Your task to perform on an android device: Set the phone to "Do not disturb". Image 0: 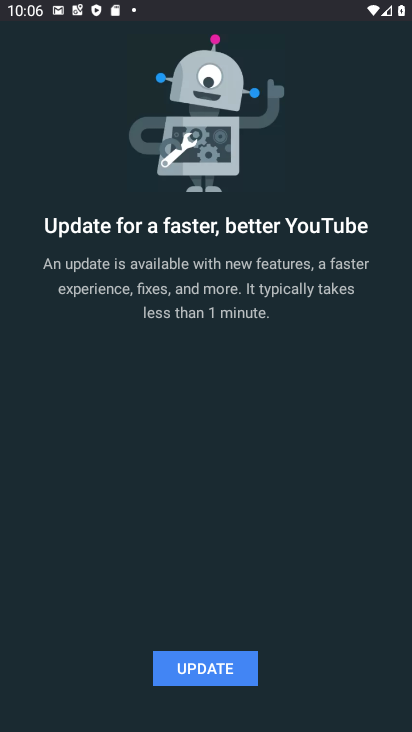
Step 0: press home button
Your task to perform on an android device: Set the phone to "Do not disturb". Image 1: 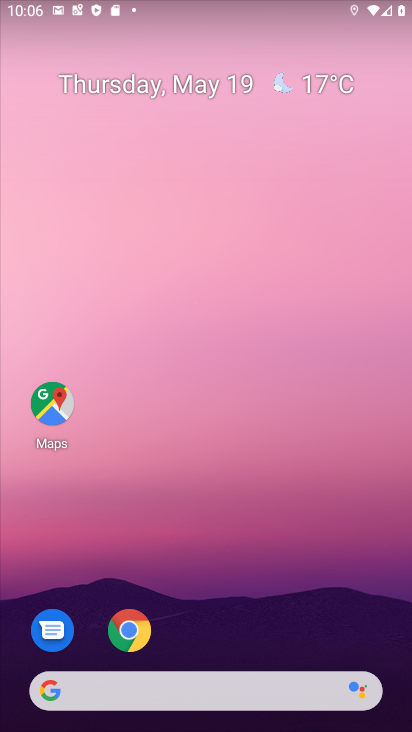
Step 1: drag from (257, 570) to (222, 63)
Your task to perform on an android device: Set the phone to "Do not disturb". Image 2: 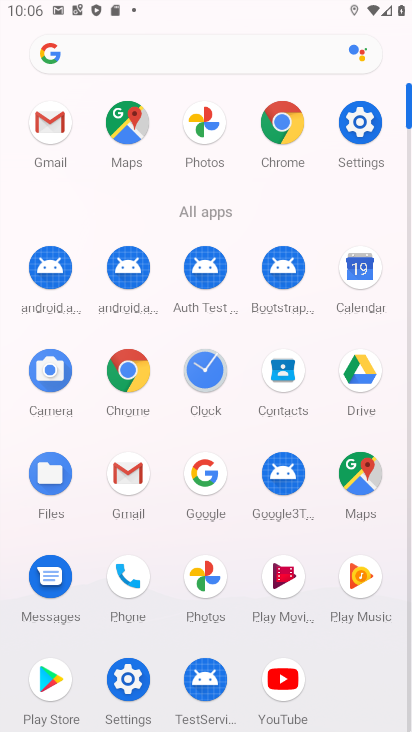
Step 2: click (360, 122)
Your task to perform on an android device: Set the phone to "Do not disturb". Image 3: 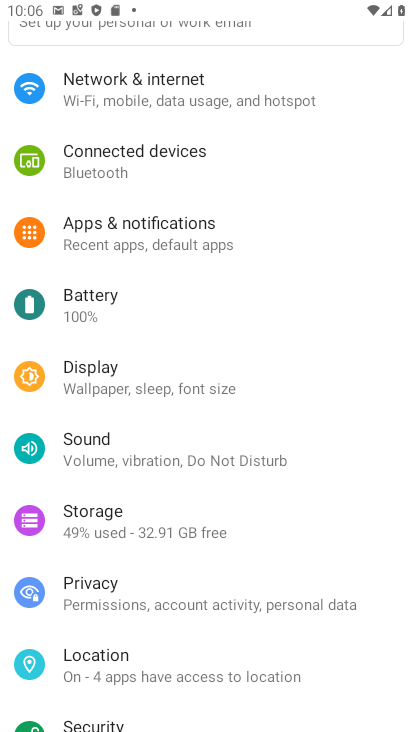
Step 3: click (78, 436)
Your task to perform on an android device: Set the phone to "Do not disturb". Image 4: 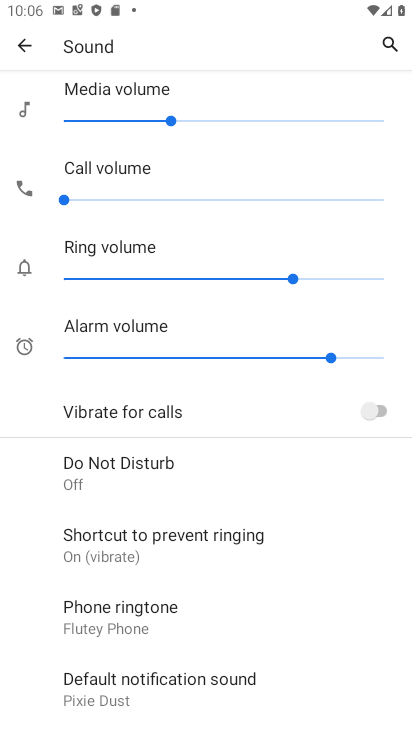
Step 4: click (125, 471)
Your task to perform on an android device: Set the phone to "Do not disturb". Image 5: 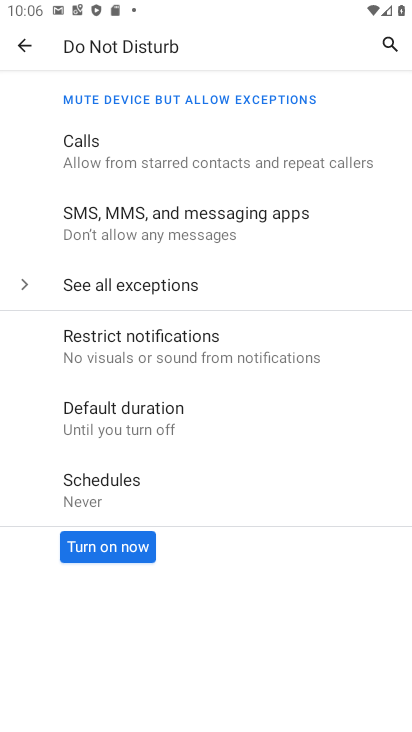
Step 5: click (112, 547)
Your task to perform on an android device: Set the phone to "Do not disturb". Image 6: 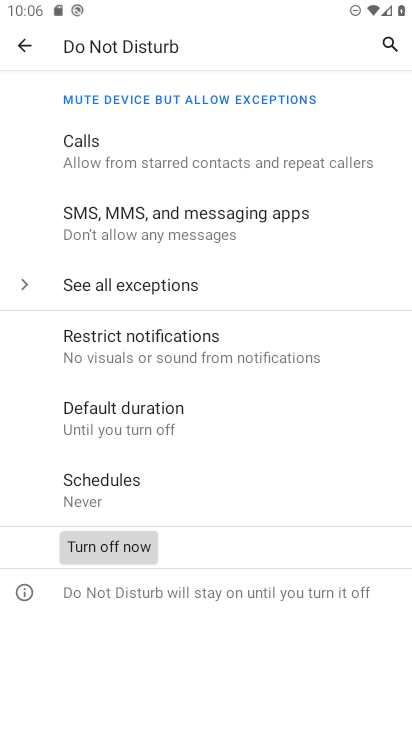
Step 6: task complete